Your task to perform on an android device: set an alarm Image 0: 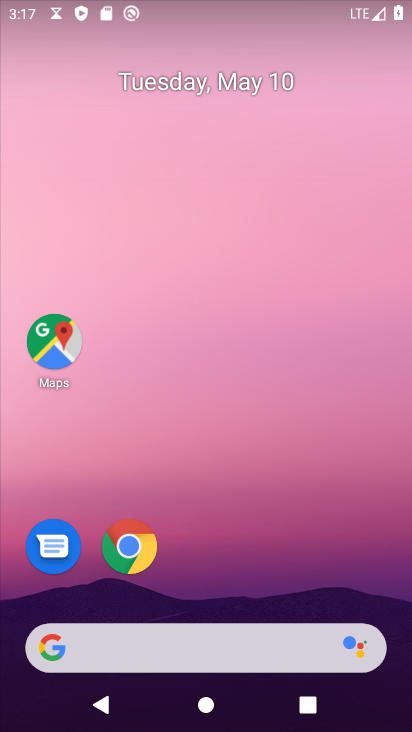
Step 0: drag from (220, 588) to (330, 0)
Your task to perform on an android device: set an alarm Image 1: 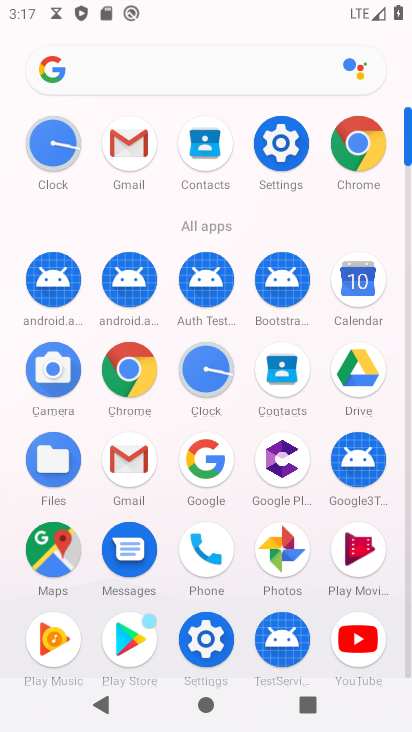
Step 1: click (196, 383)
Your task to perform on an android device: set an alarm Image 2: 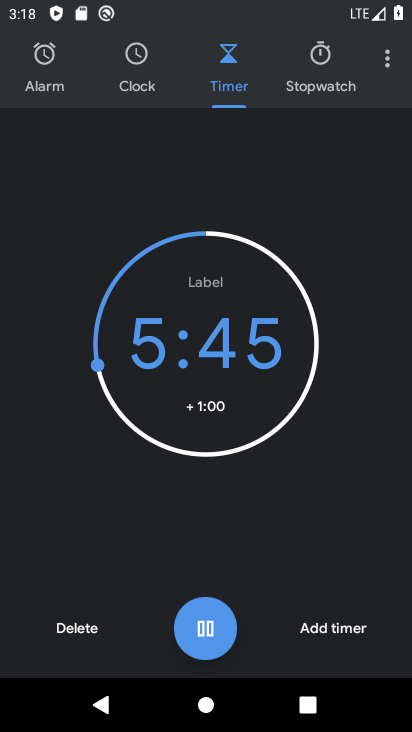
Step 2: click (33, 75)
Your task to perform on an android device: set an alarm Image 3: 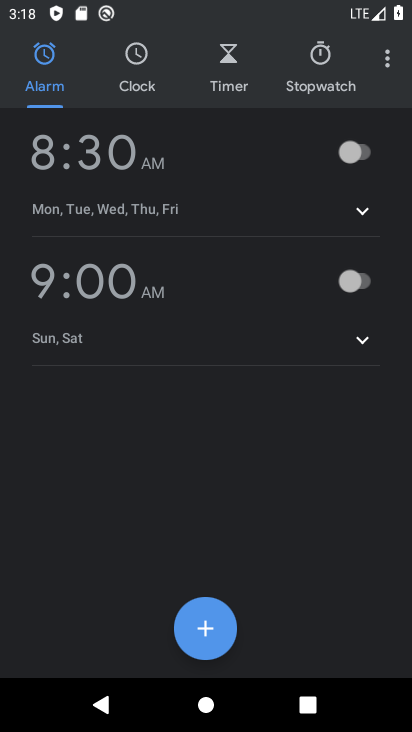
Step 3: click (362, 208)
Your task to perform on an android device: set an alarm Image 4: 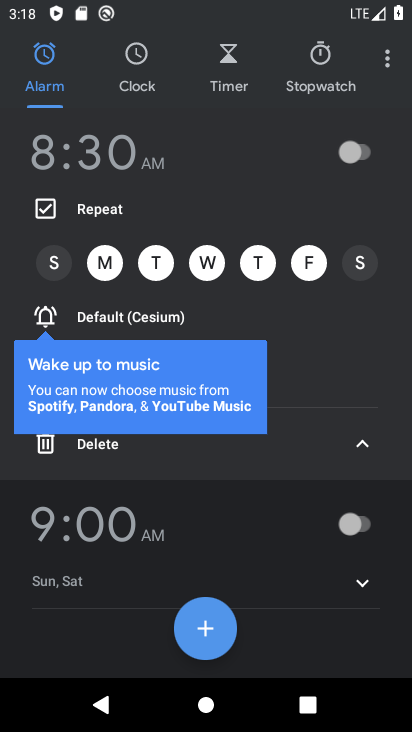
Step 4: click (112, 270)
Your task to perform on an android device: set an alarm Image 5: 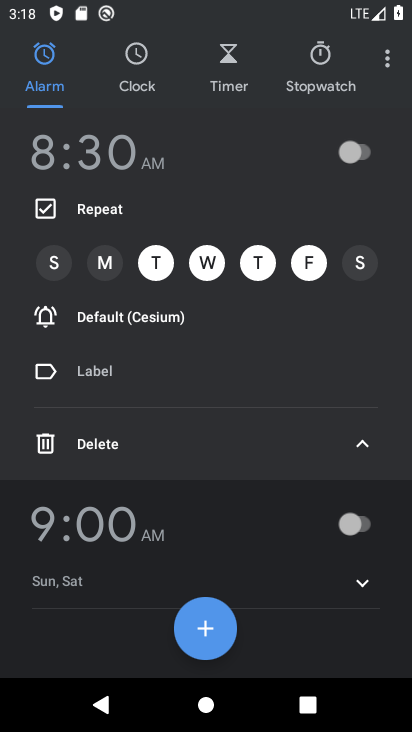
Step 5: click (155, 271)
Your task to perform on an android device: set an alarm Image 6: 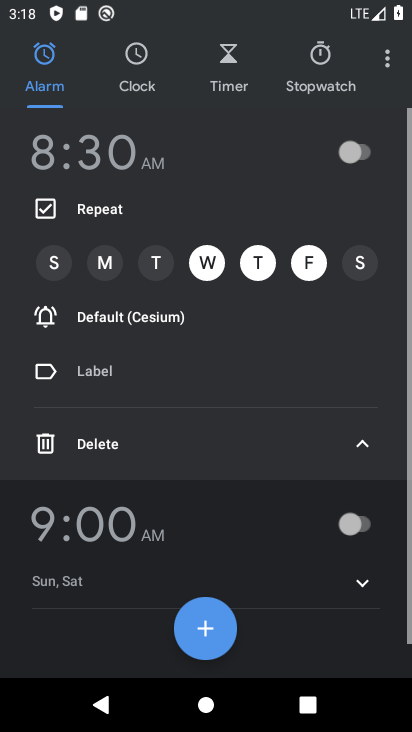
Step 6: click (51, 261)
Your task to perform on an android device: set an alarm Image 7: 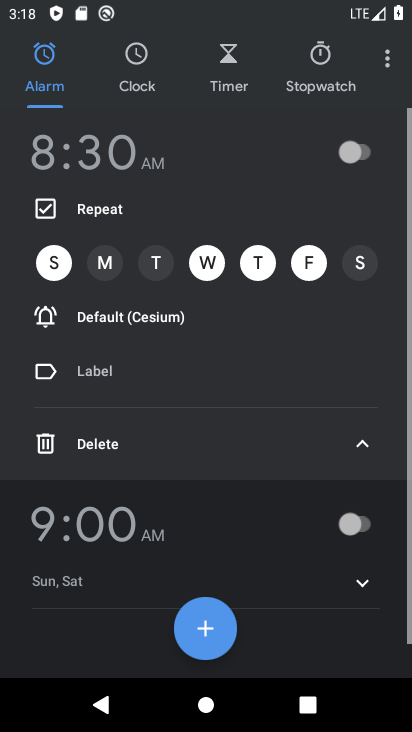
Step 7: click (359, 273)
Your task to perform on an android device: set an alarm Image 8: 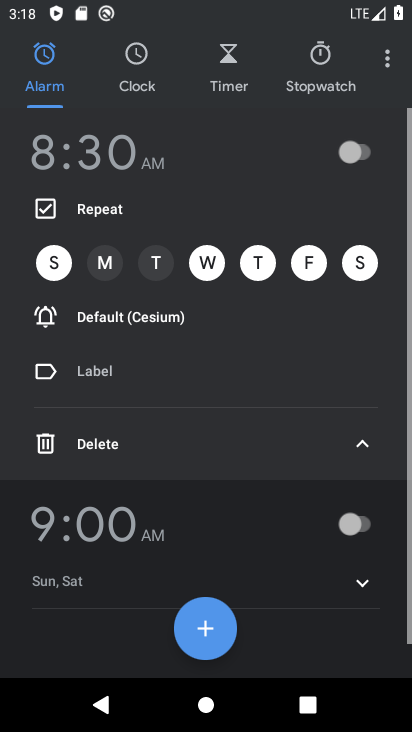
Step 8: click (117, 162)
Your task to perform on an android device: set an alarm Image 9: 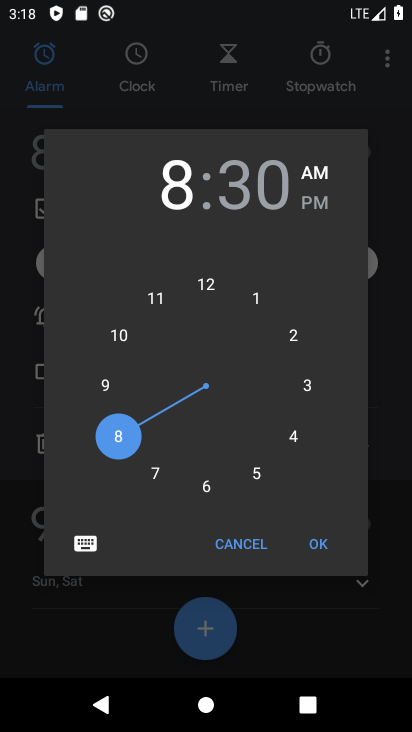
Step 9: click (212, 284)
Your task to perform on an android device: set an alarm Image 10: 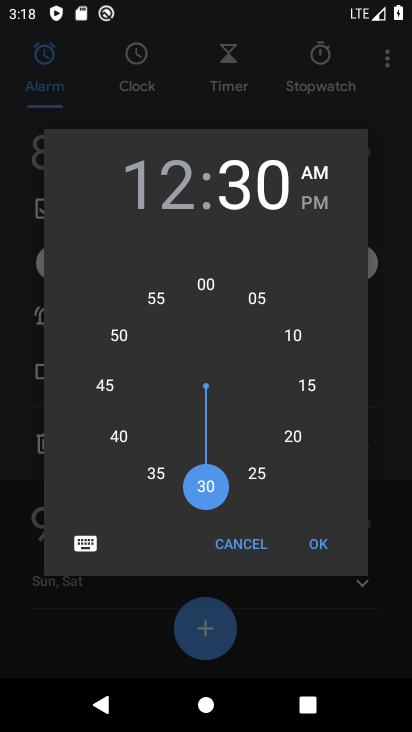
Step 10: click (300, 436)
Your task to perform on an android device: set an alarm Image 11: 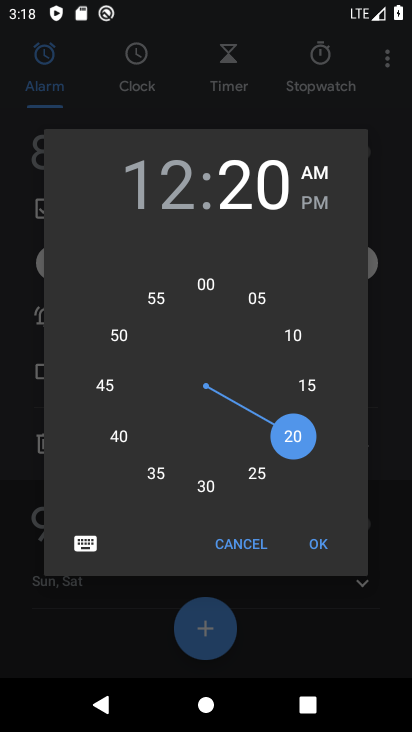
Step 11: click (323, 204)
Your task to perform on an android device: set an alarm Image 12: 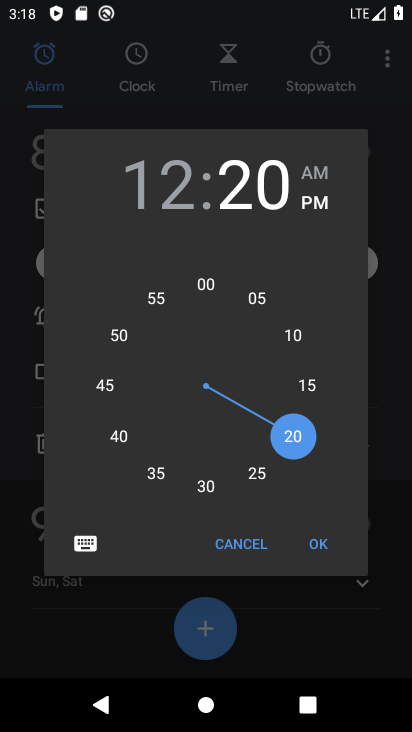
Step 12: click (313, 542)
Your task to perform on an android device: set an alarm Image 13: 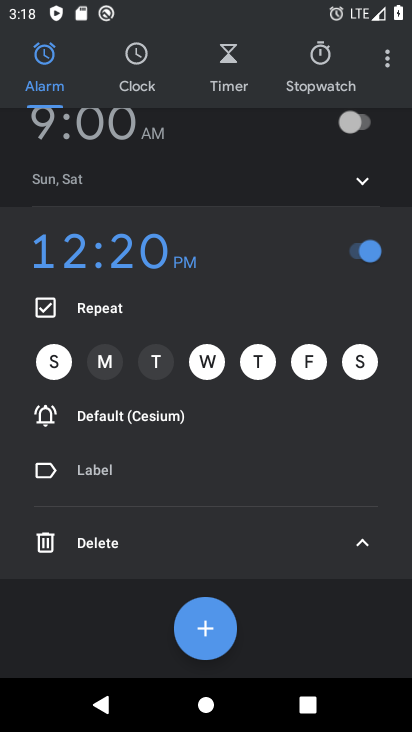
Step 13: task complete